Your task to perform on an android device: Go to sound settings Image 0: 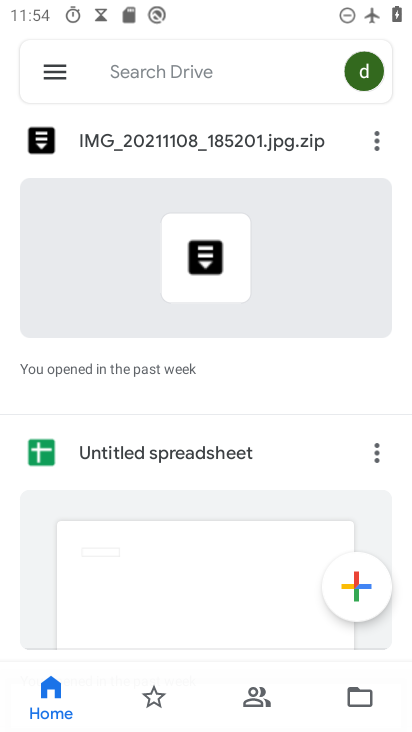
Step 0: press home button
Your task to perform on an android device: Go to sound settings Image 1: 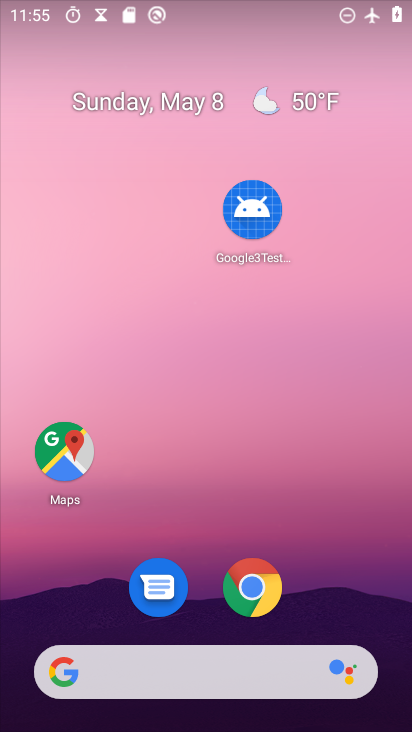
Step 1: drag from (332, 561) to (63, 115)
Your task to perform on an android device: Go to sound settings Image 2: 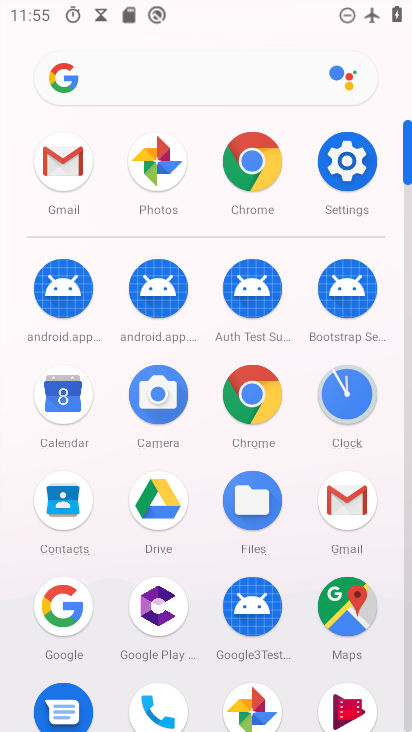
Step 2: click (357, 165)
Your task to perform on an android device: Go to sound settings Image 3: 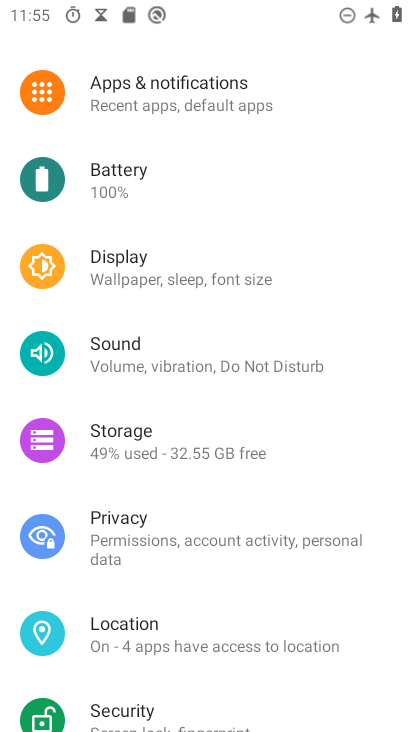
Step 3: click (144, 357)
Your task to perform on an android device: Go to sound settings Image 4: 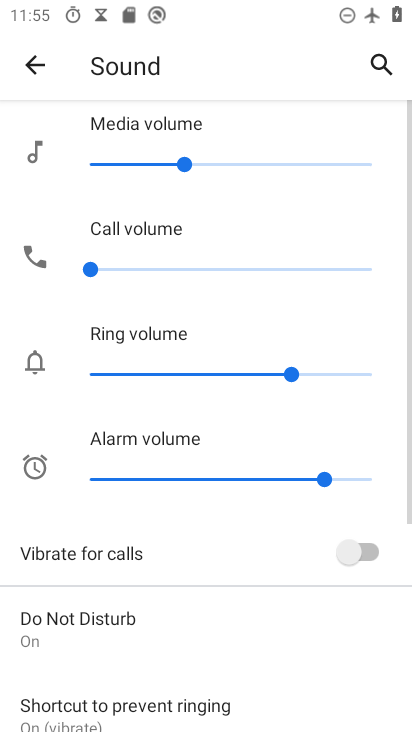
Step 4: drag from (132, 661) to (196, 158)
Your task to perform on an android device: Go to sound settings Image 5: 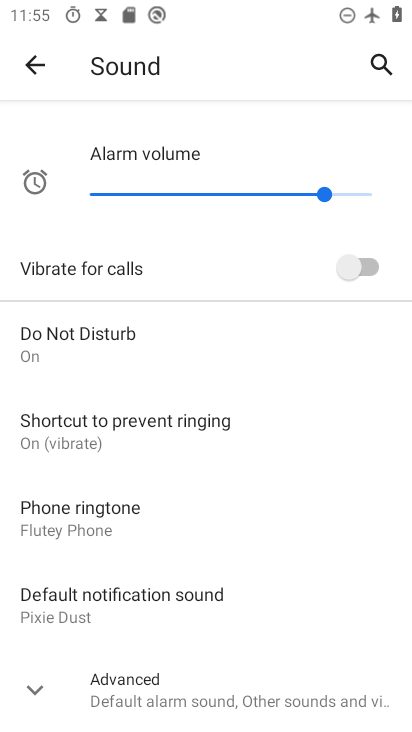
Step 5: click (155, 697)
Your task to perform on an android device: Go to sound settings Image 6: 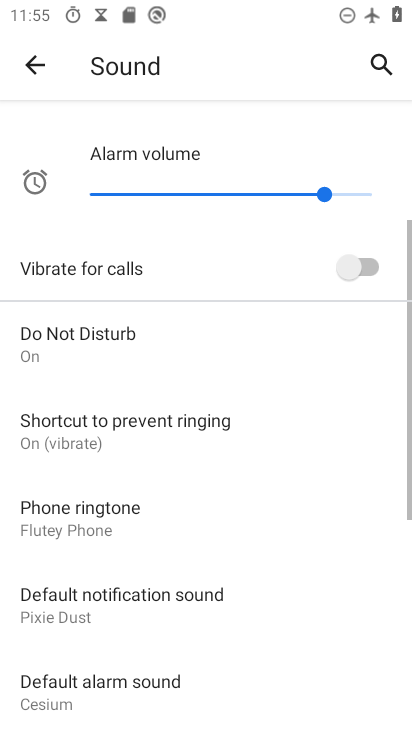
Step 6: drag from (159, 698) to (176, 266)
Your task to perform on an android device: Go to sound settings Image 7: 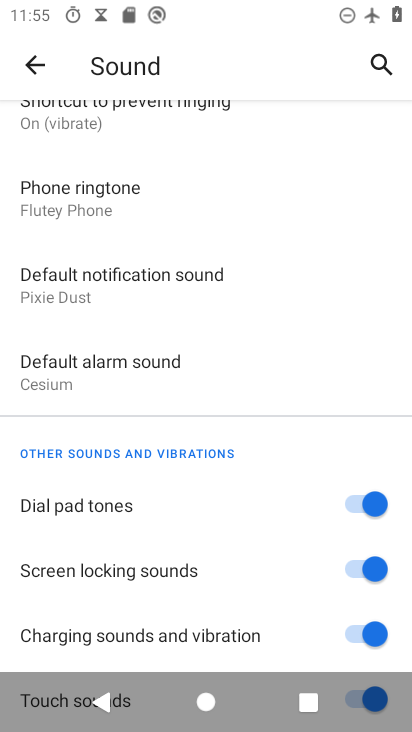
Step 7: drag from (176, 631) to (140, 643)
Your task to perform on an android device: Go to sound settings Image 8: 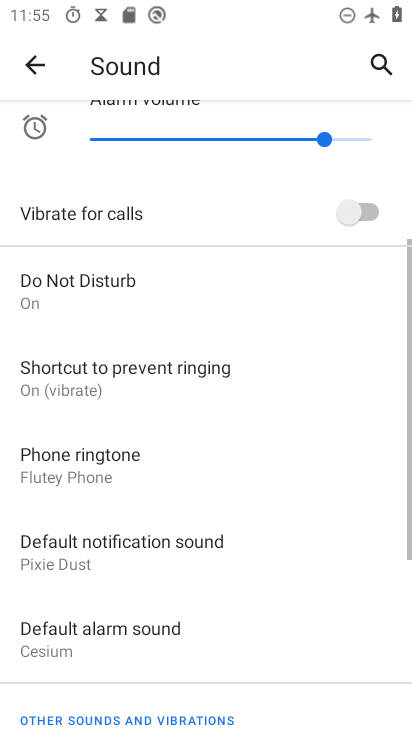
Step 8: drag from (176, 247) to (164, 611)
Your task to perform on an android device: Go to sound settings Image 9: 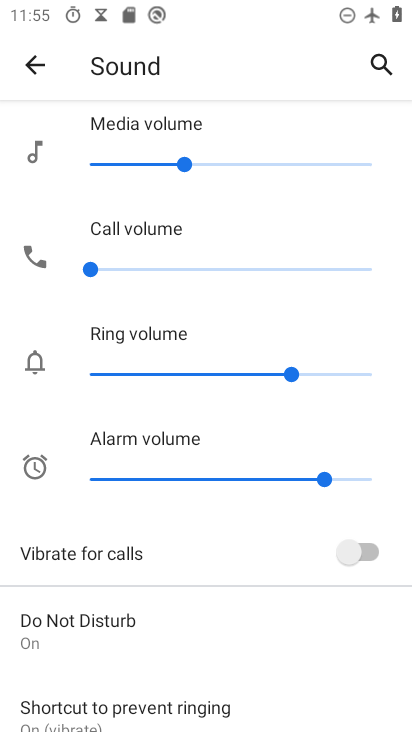
Step 9: click (47, 154)
Your task to perform on an android device: Go to sound settings Image 10: 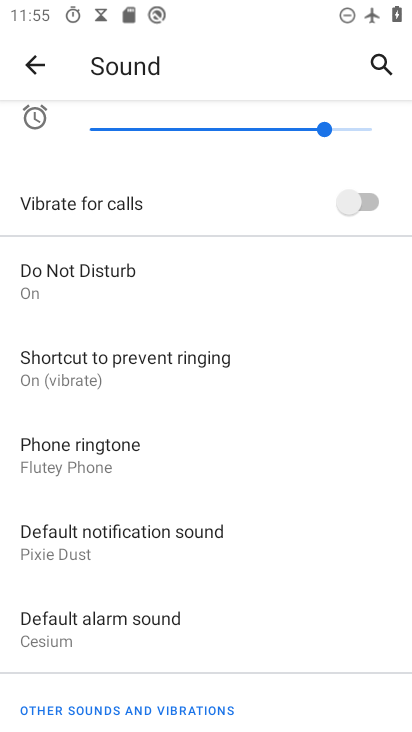
Step 10: task complete